Your task to perform on an android device: check data usage Image 0: 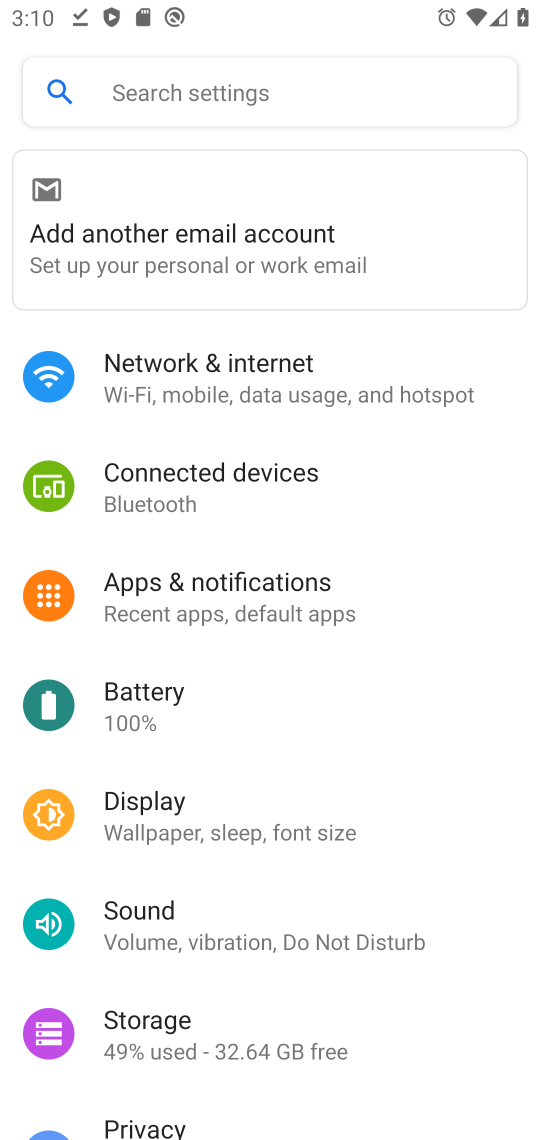
Step 0: drag from (280, 940) to (486, 340)
Your task to perform on an android device: check data usage Image 1: 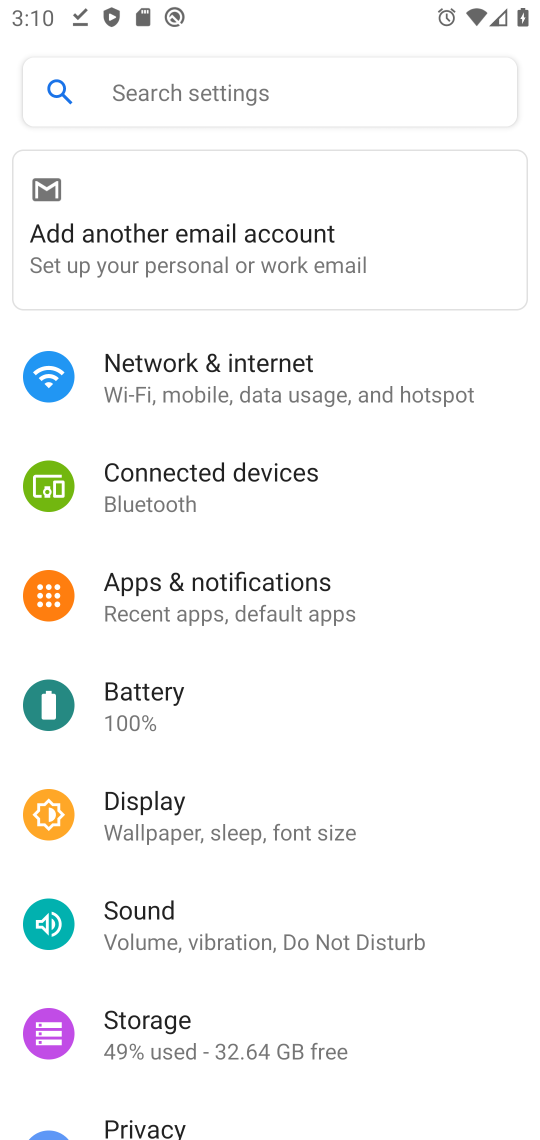
Step 1: click (239, 396)
Your task to perform on an android device: check data usage Image 2: 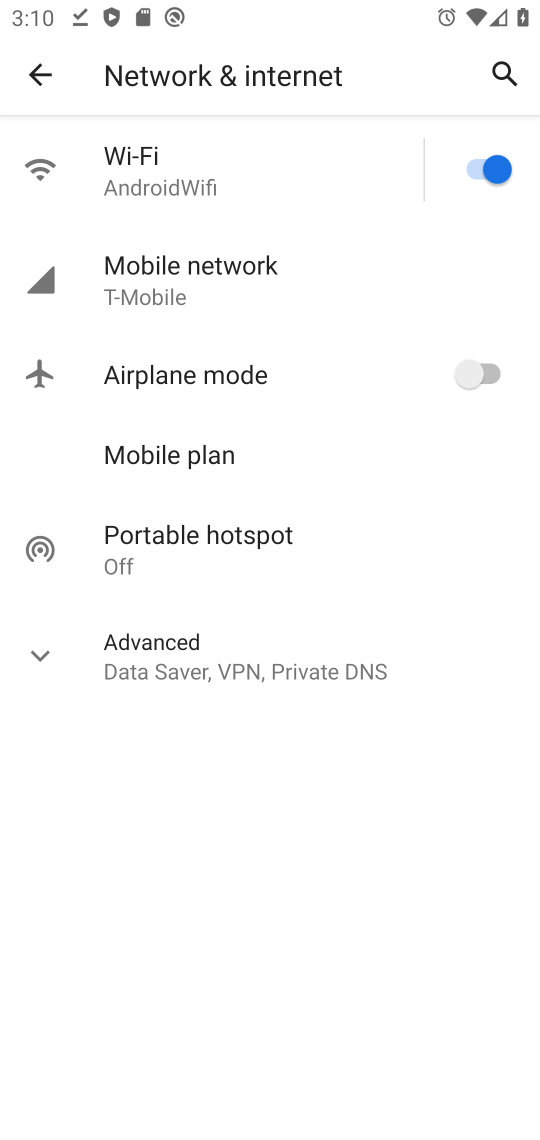
Step 2: click (286, 280)
Your task to perform on an android device: check data usage Image 3: 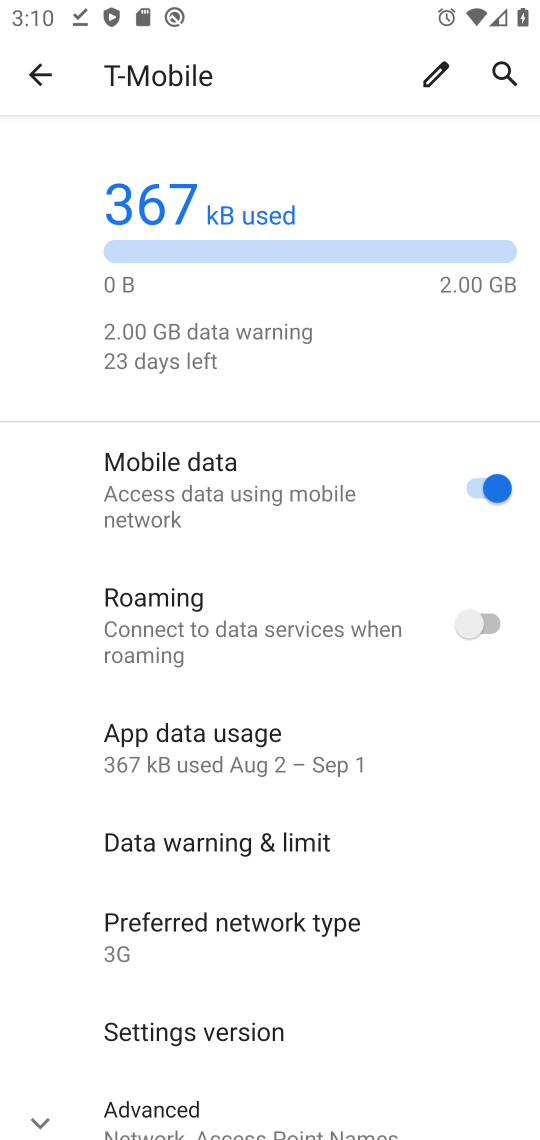
Step 3: task complete